Your task to perform on an android device: manage bookmarks in the chrome app Image 0: 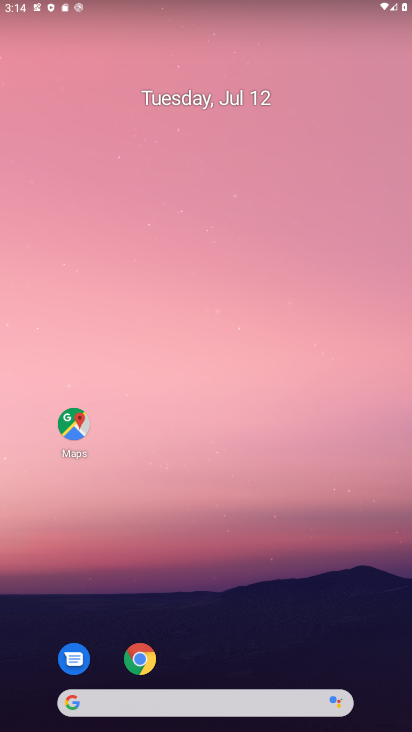
Step 0: click (141, 661)
Your task to perform on an android device: manage bookmarks in the chrome app Image 1: 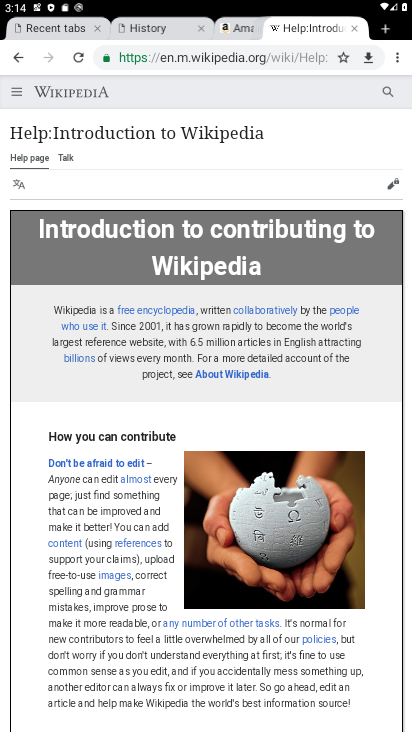
Step 1: click (397, 56)
Your task to perform on an android device: manage bookmarks in the chrome app Image 2: 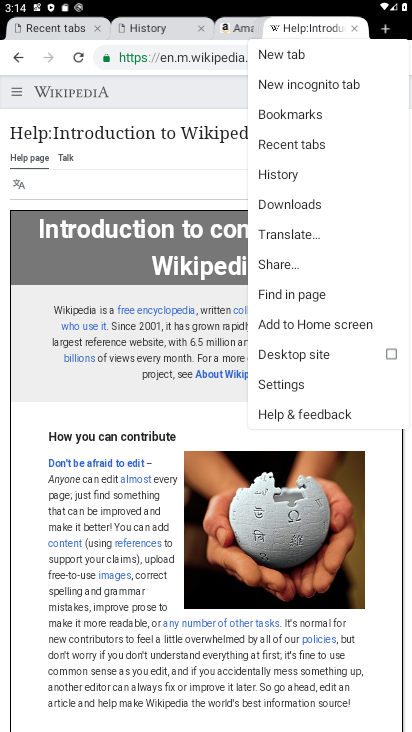
Step 2: click (297, 111)
Your task to perform on an android device: manage bookmarks in the chrome app Image 3: 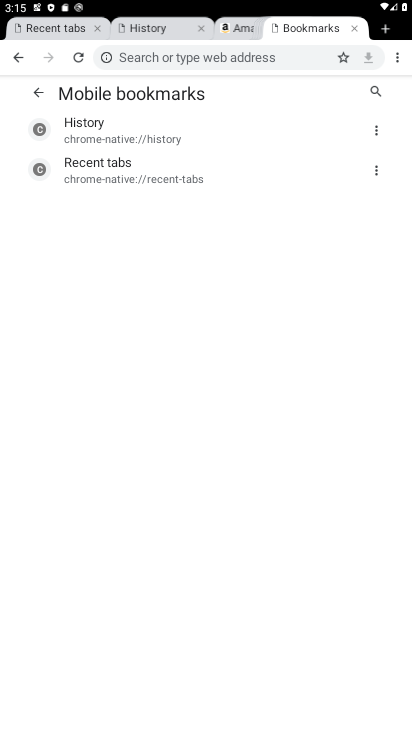
Step 3: click (374, 128)
Your task to perform on an android device: manage bookmarks in the chrome app Image 4: 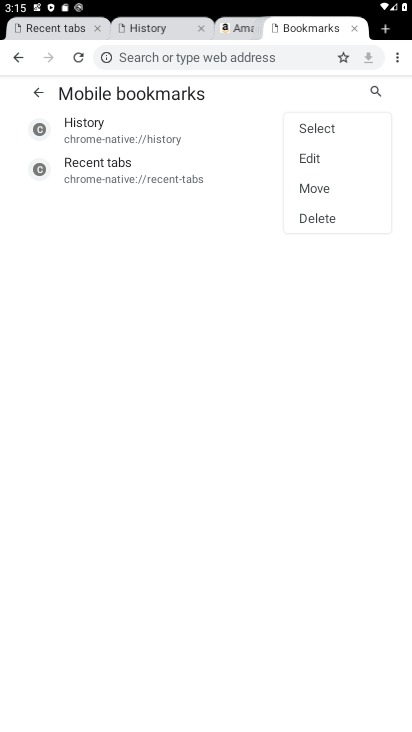
Step 4: click (314, 155)
Your task to perform on an android device: manage bookmarks in the chrome app Image 5: 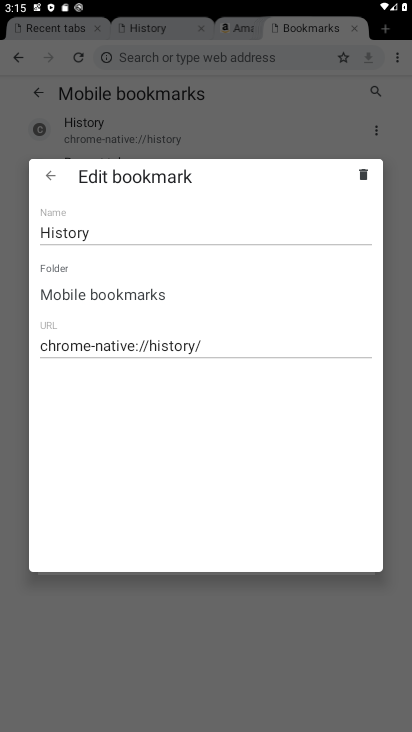
Step 5: click (125, 234)
Your task to perform on an android device: manage bookmarks in the chrome app Image 6: 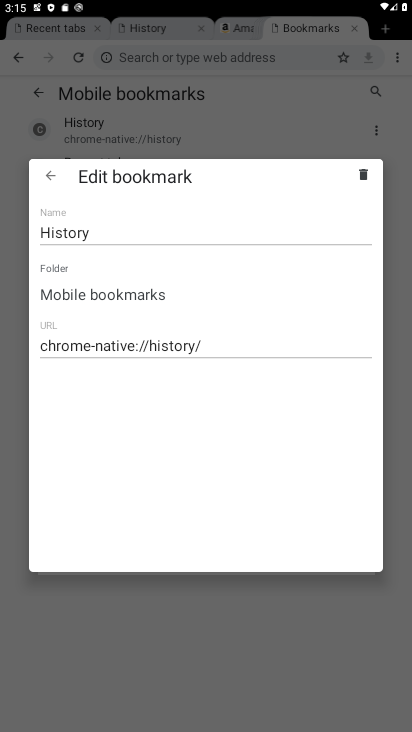
Step 6: click (125, 234)
Your task to perform on an android device: manage bookmarks in the chrome app Image 7: 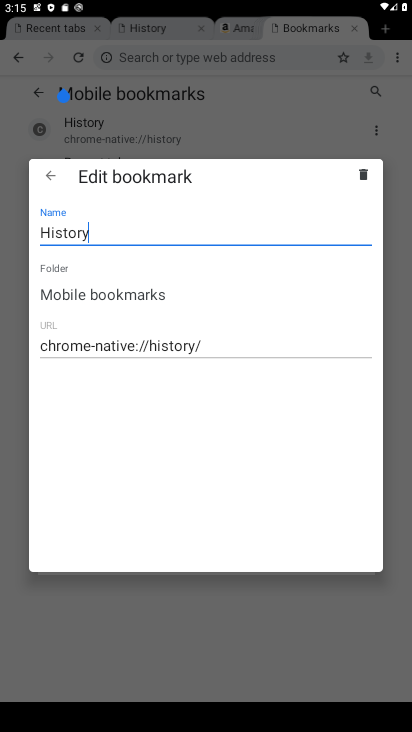
Step 7: click (125, 234)
Your task to perform on an android device: manage bookmarks in the chrome app Image 8: 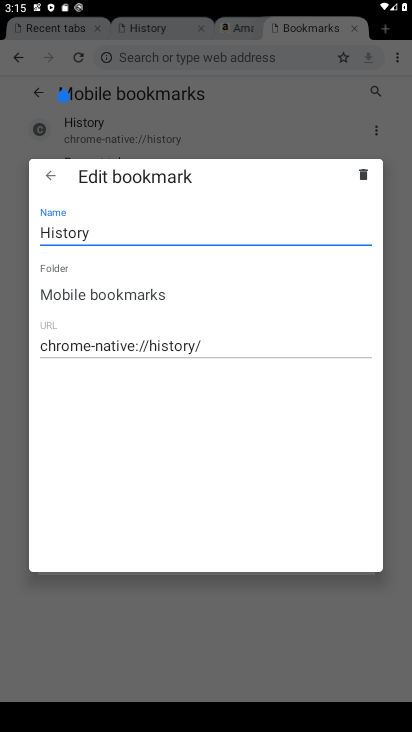
Step 8: click (125, 234)
Your task to perform on an android device: manage bookmarks in the chrome app Image 9: 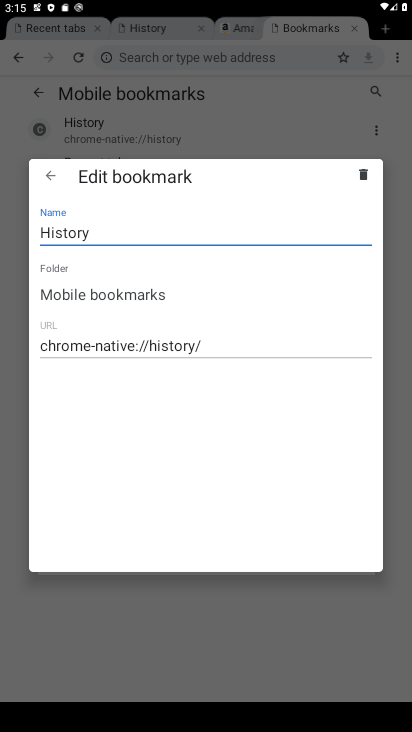
Step 9: click (125, 234)
Your task to perform on an android device: manage bookmarks in the chrome app Image 10: 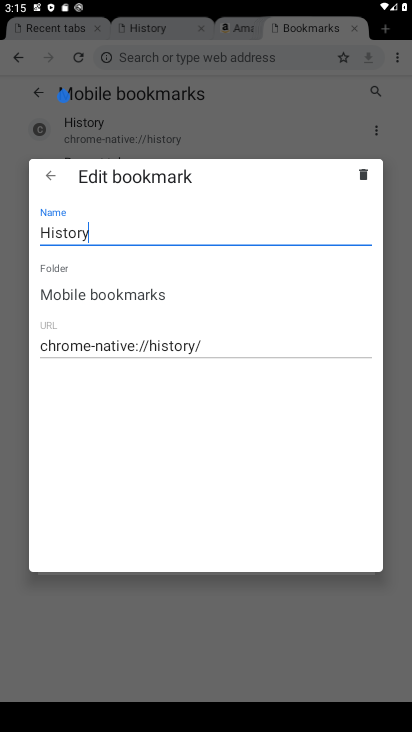
Step 10: click (125, 234)
Your task to perform on an android device: manage bookmarks in the chrome app Image 11: 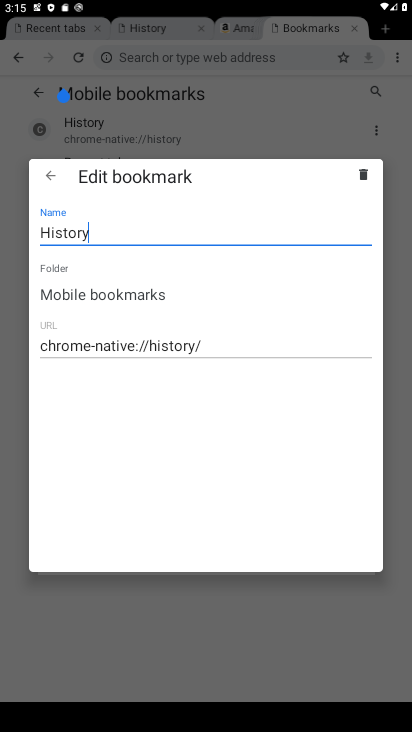
Step 11: click (55, 228)
Your task to perform on an android device: manage bookmarks in the chrome app Image 12: 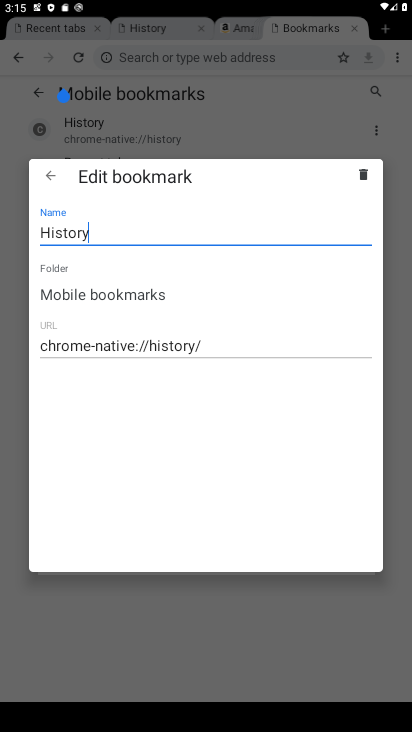
Step 12: click (55, 228)
Your task to perform on an android device: manage bookmarks in the chrome app Image 13: 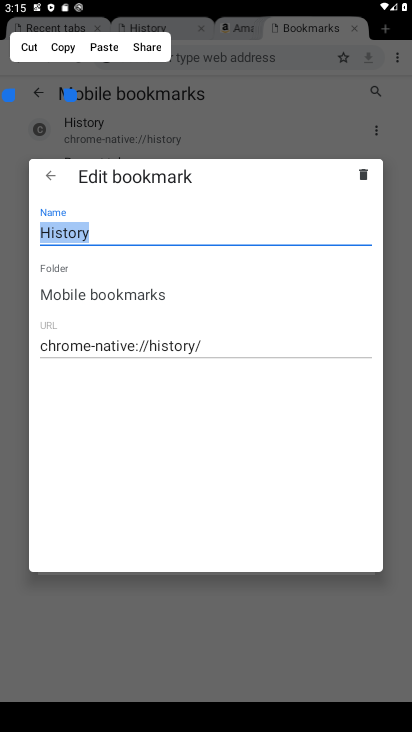
Step 13: click (28, 43)
Your task to perform on an android device: manage bookmarks in the chrome app Image 14: 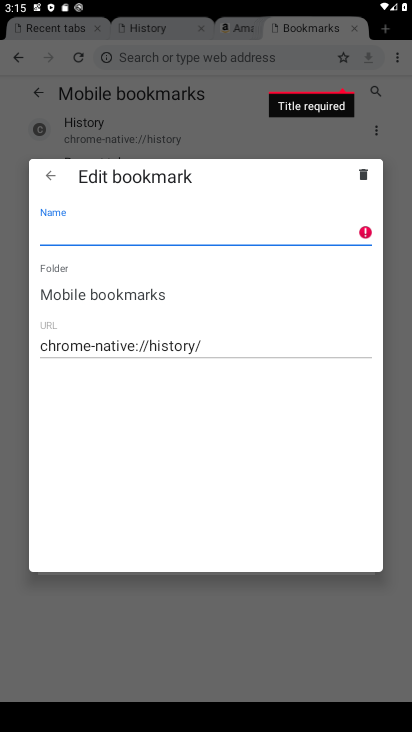
Step 14: click (221, 234)
Your task to perform on an android device: manage bookmarks in the chrome app Image 15: 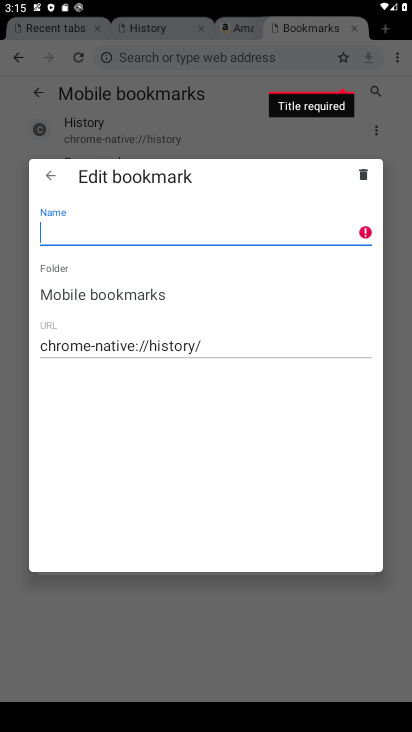
Step 15: type "bb"
Your task to perform on an android device: manage bookmarks in the chrome app Image 16: 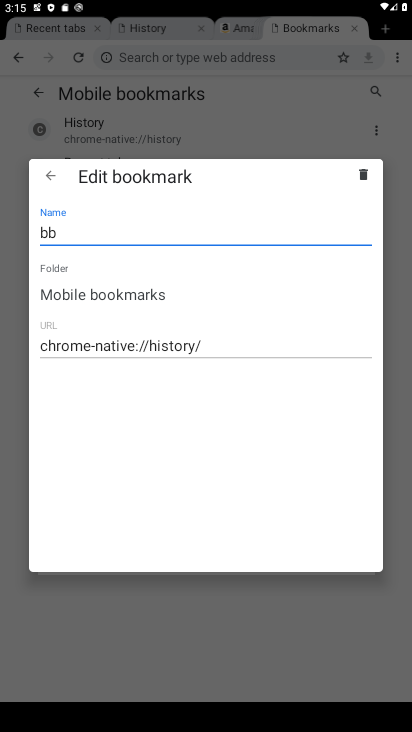
Step 16: click (49, 174)
Your task to perform on an android device: manage bookmarks in the chrome app Image 17: 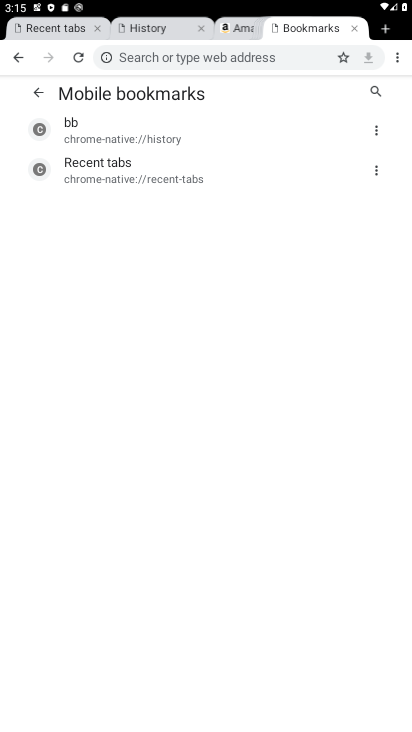
Step 17: task complete